Your task to perform on an android device: add a contact in the contacts app Image 0: 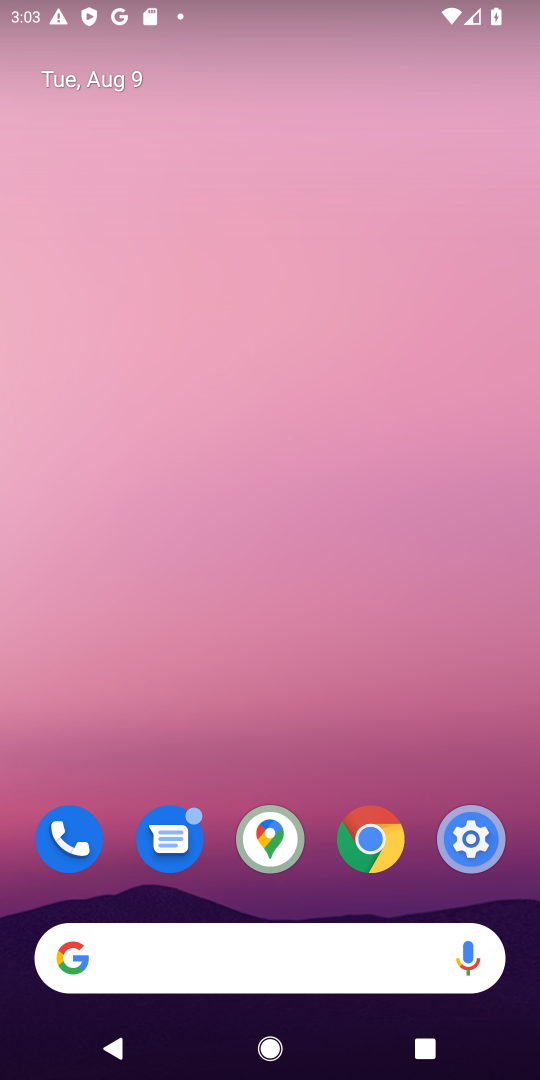
Step 0: press home button
Your task to perform on an android device: add a contact in the contacts app Image 1: 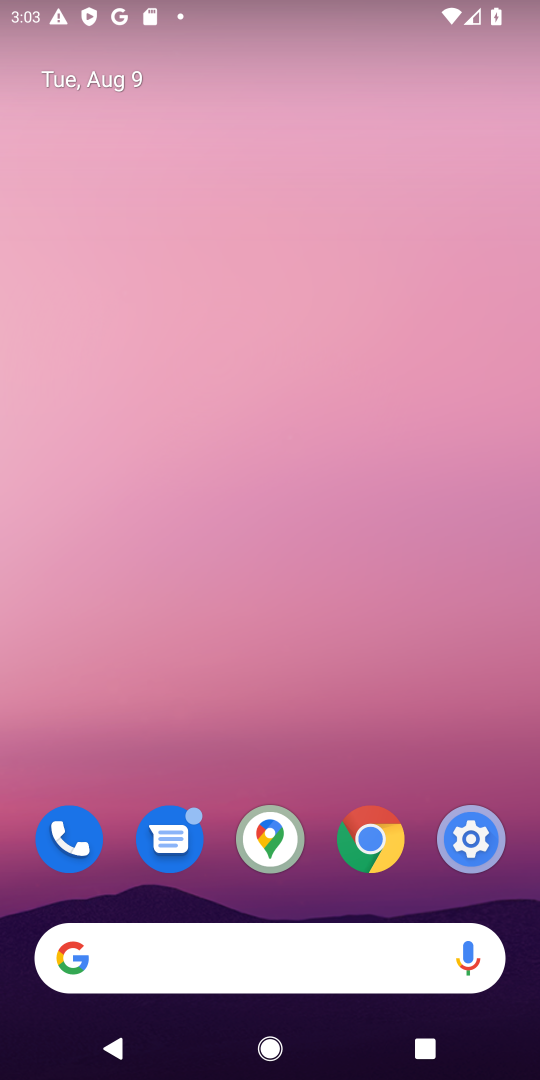
Step 1: drag from (283, 705) to (350, 167)
Your task to perform on an android device: add a contact in the contacts app Image 2: 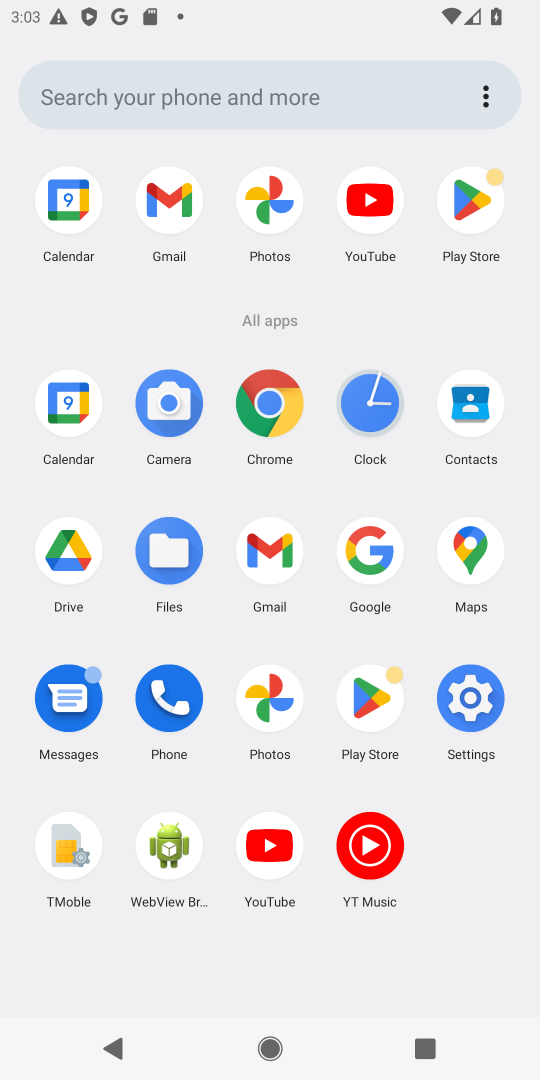
Step 2: click (480, 402)
Your task to perform on an android device: add a contact in the contacts app Image 3: 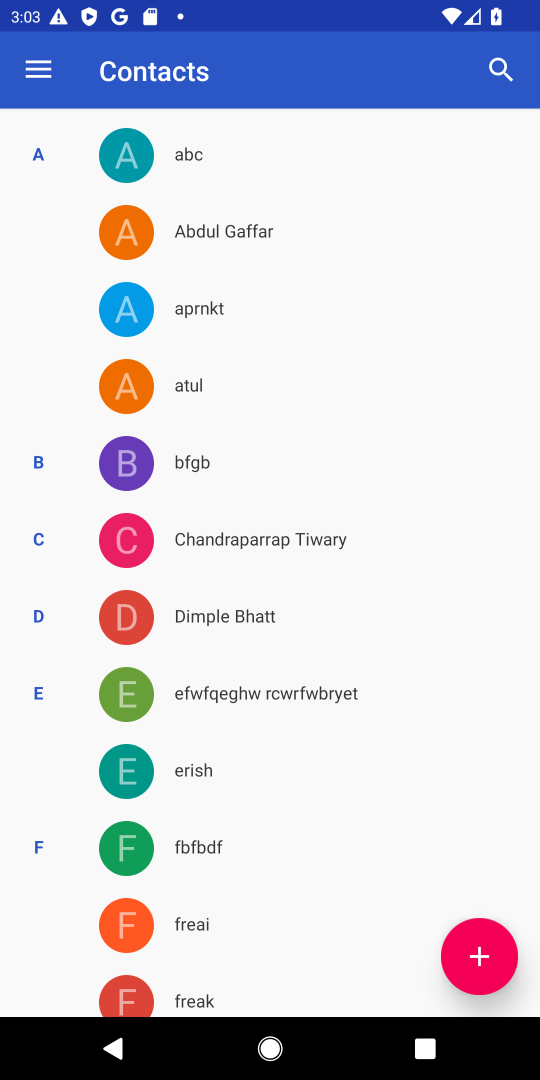
Step 3: click (493, 962)
Your task to perform on an android device: add a contact in the contacts app Image 4: 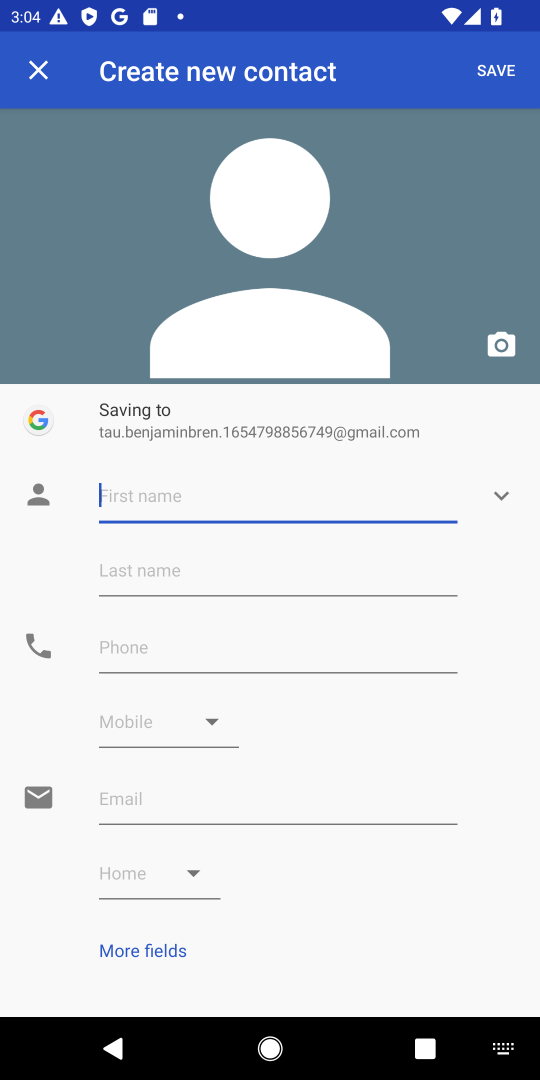
Step 4: type "ddsgdsfffffffffgsd"
Your task to perform on an android device: add a contact in the contacts app Image 5: 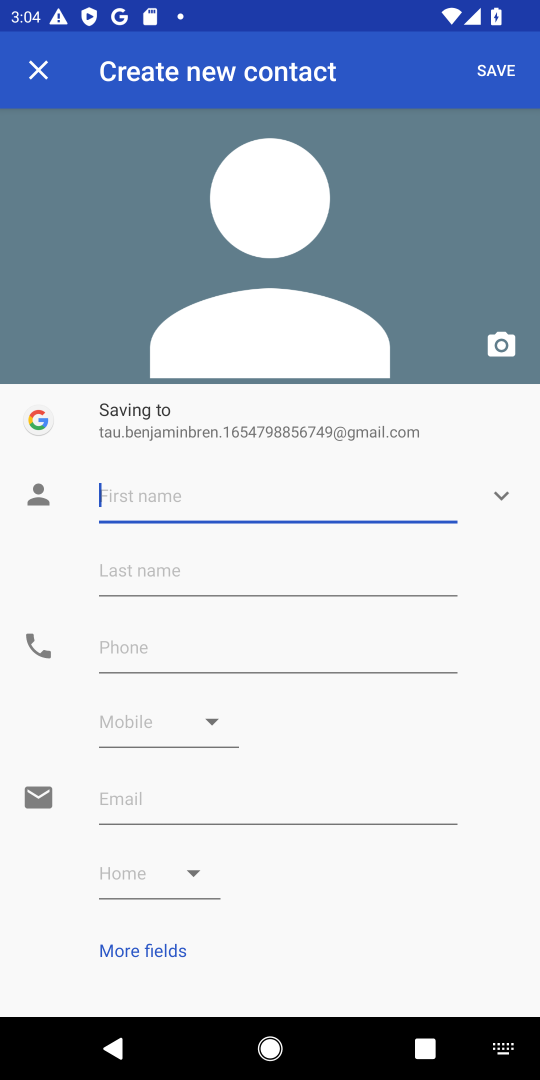
Step 5: click (156, 501)
Your task to perform on an android device: add a contact in the contacts app Image 6: 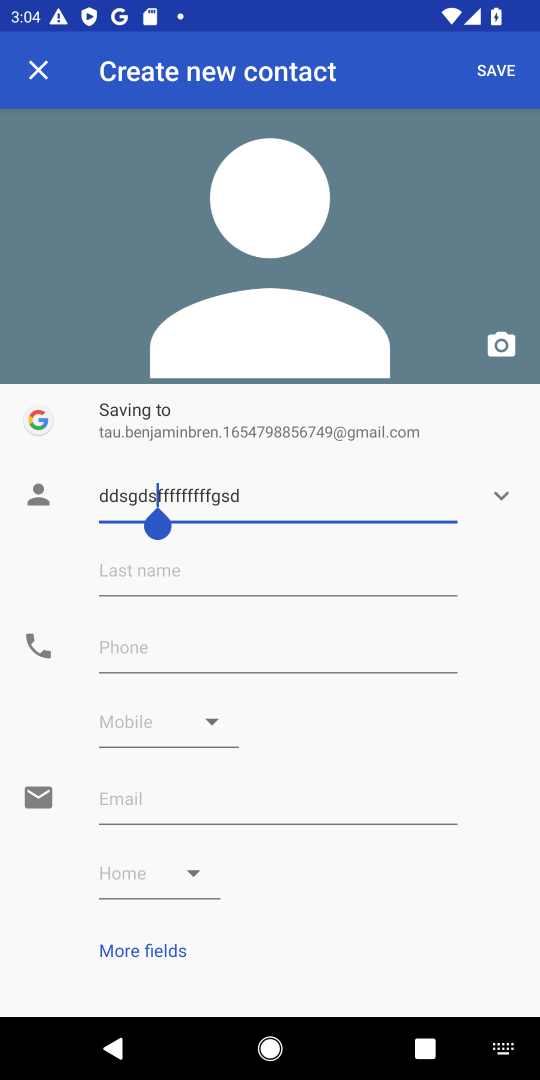
Step 6: click (180, 660)
Your task to perform on an android device: add a contact in the contacts app Image 7: 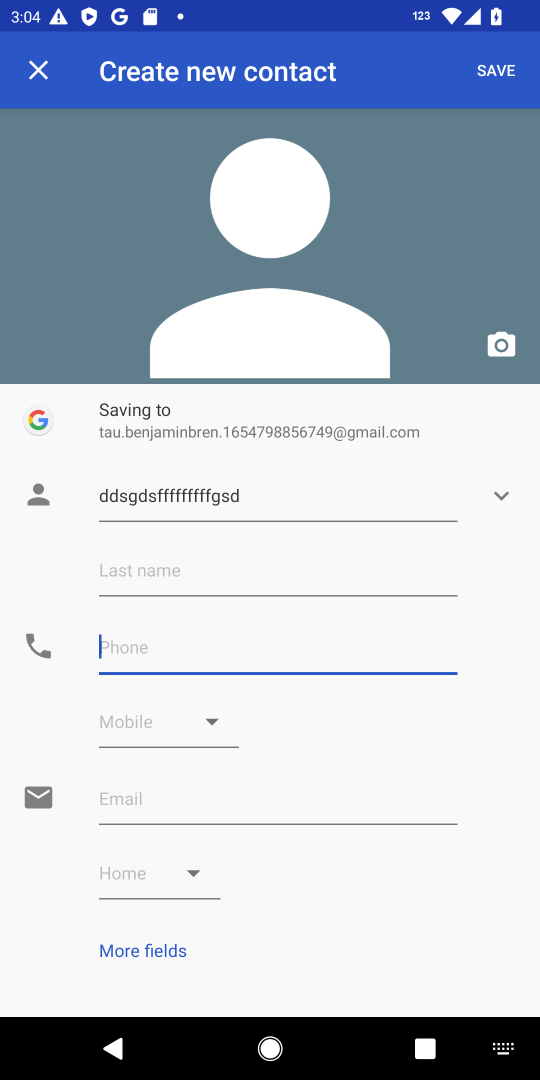
Step 7: type ""
Your task to perform on an android device: add a contact in the contacts app Image 8: 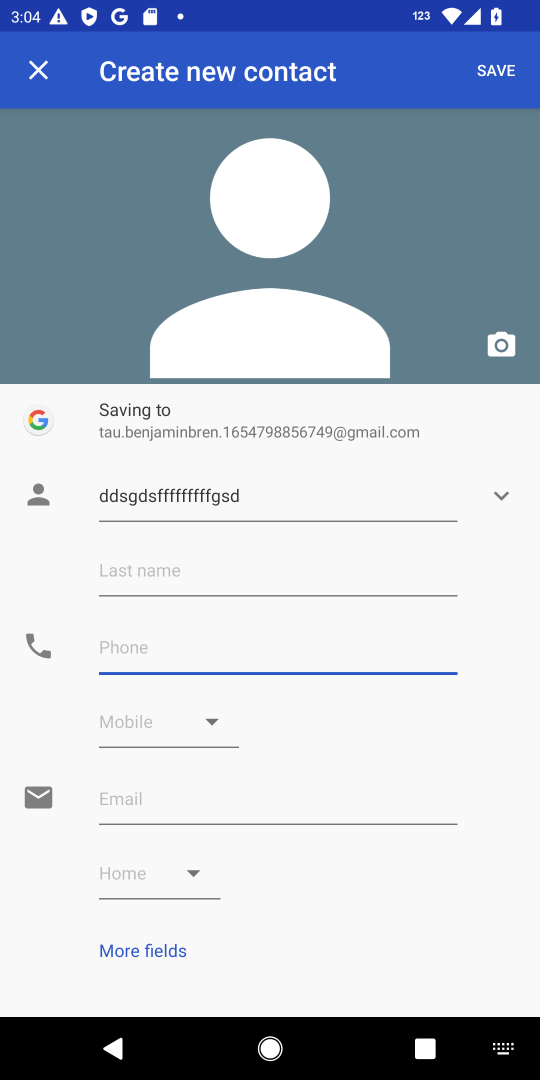
Step 8: type "53333"
Your task to perform on an android device: add a contact in the contacts app Image 9: 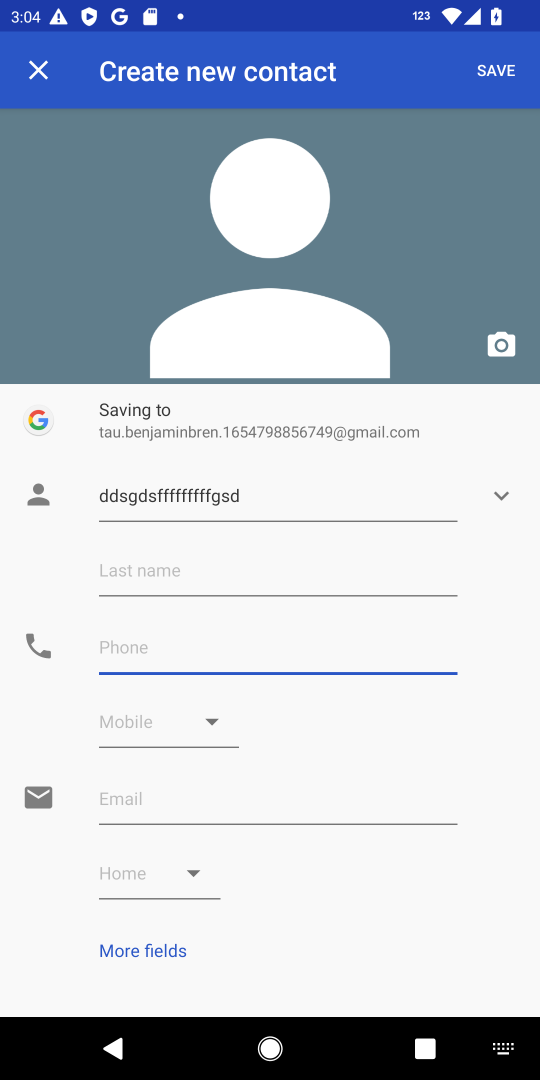
Step 9: click (169, 640)
Your task to perform on an android device: add a contact in the contacts app Image 10: 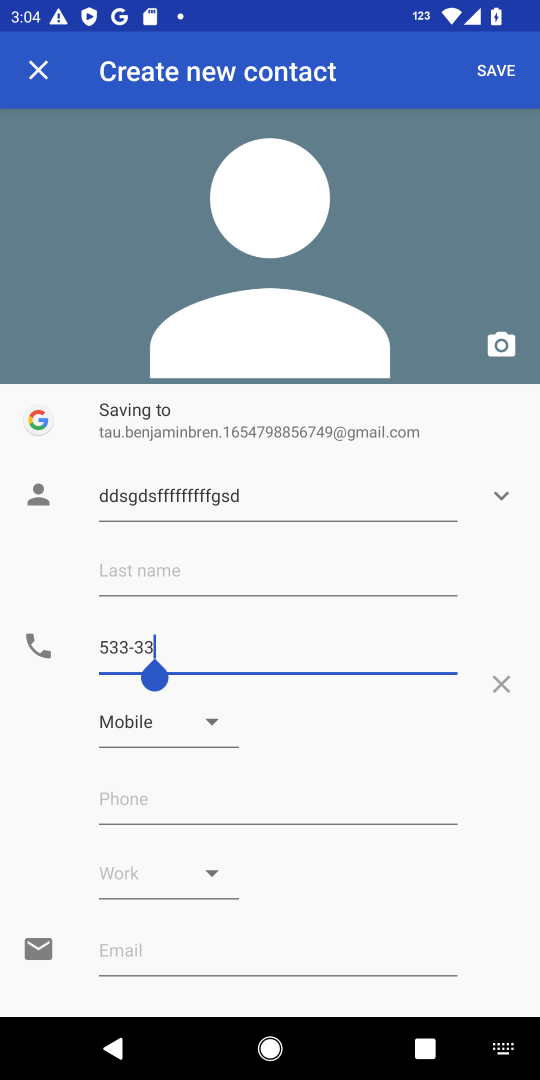
Step 10: click (500, 66)
Your task to perform on an android device: add a contact in the contacts app Image 11: 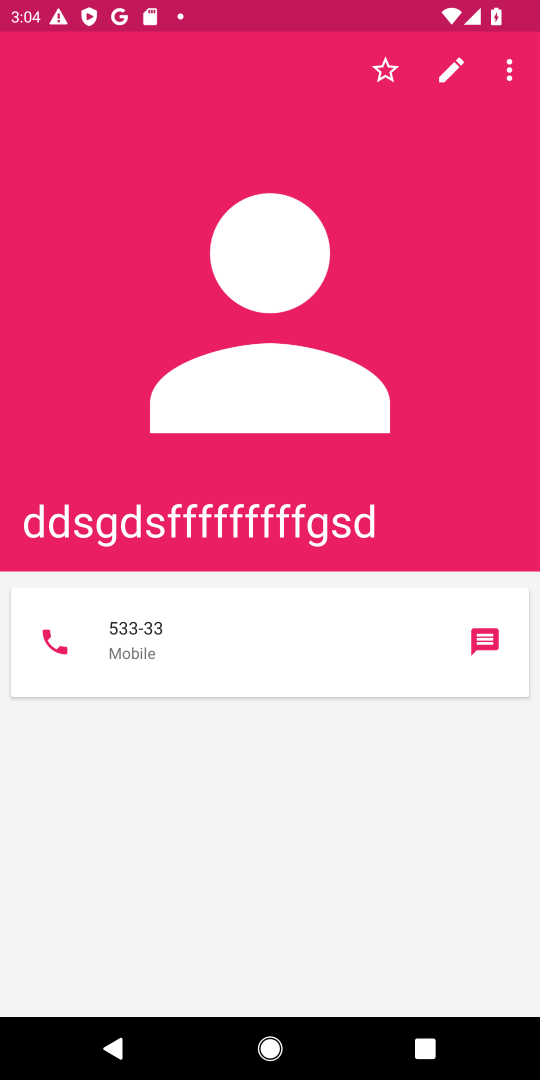
Step 11: task complete